Your task to perform on an android device: Open privacy settings Image 0: 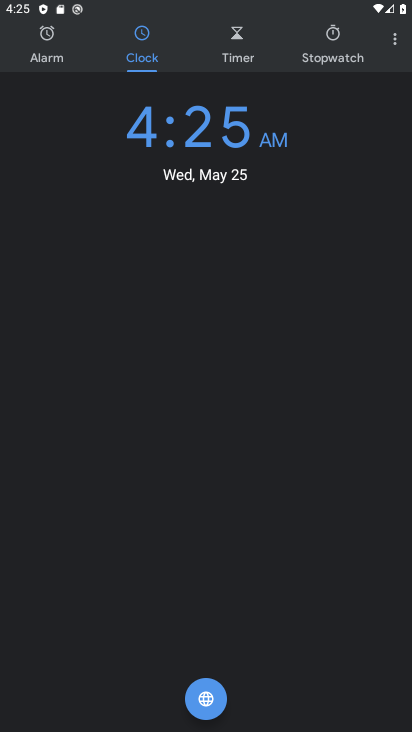
Step 0: press home button
Your task to perform on an android device: Open privacy settings Image 1: 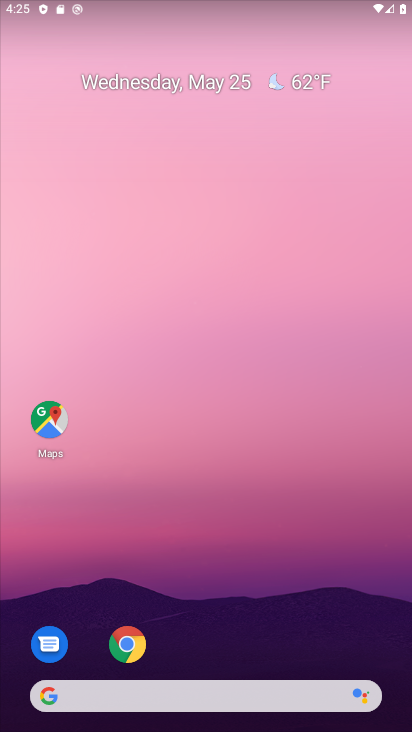
Step 1: drag from (195, 635) to (173, 103)
Your task to perform on an android device: Open privacy settings Image 2: 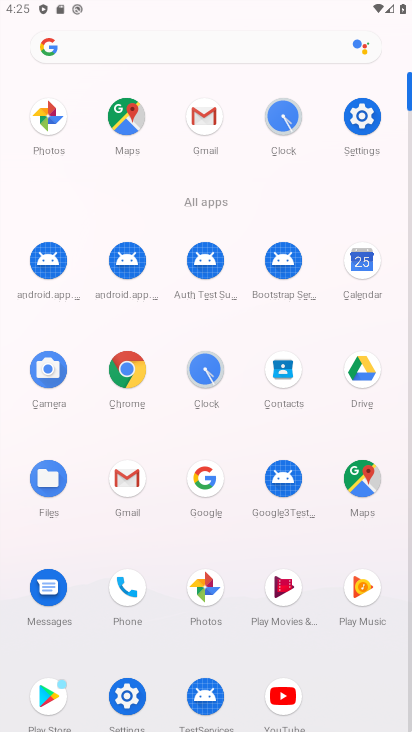
Step 2: click (119, 402)
Your task to perform on an android device: Open privacy settings Image 3: 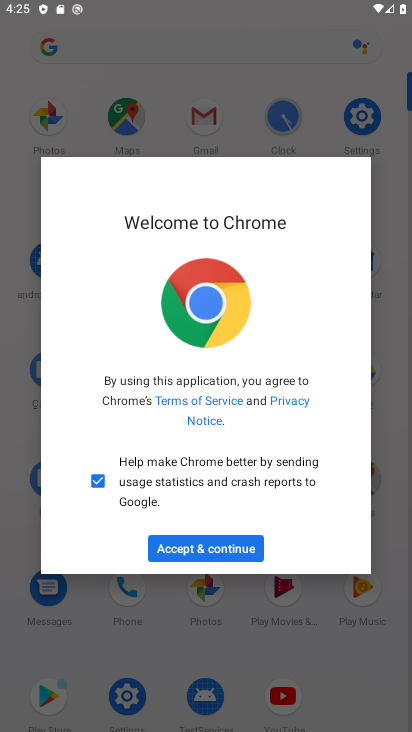
Step 3: press home button
Your task to perform on an android device: Open privacy settings Image 4: 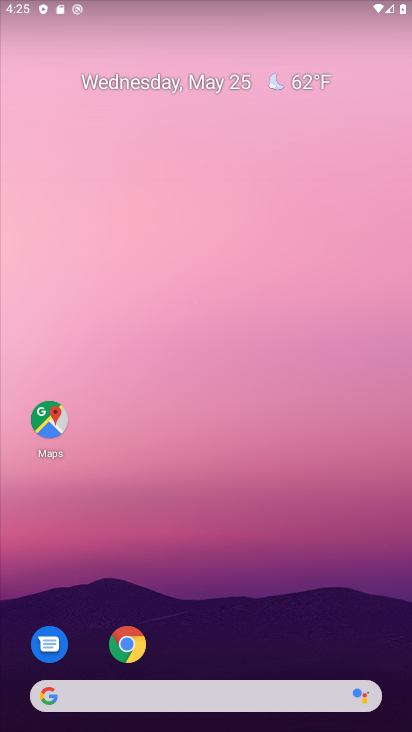
Step 4: drag from (190, 508) to (183, 241)
Your task to perform on an android device: Open privacy settings Image 5: 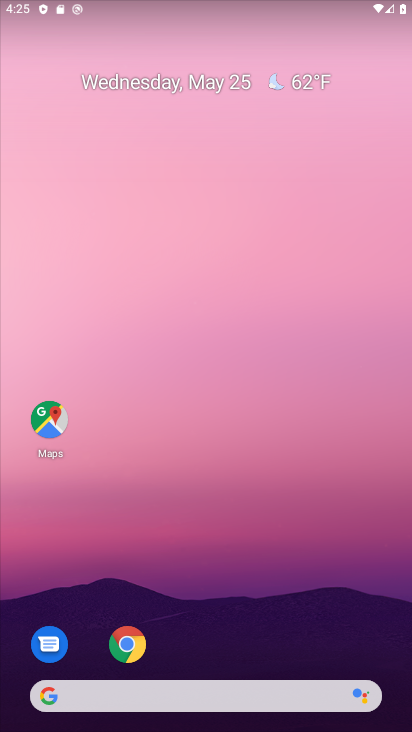
Step 5: drag from (205, 391) to (216, 57)
Your task to perform on an android device: Open privacy settings Image 6: 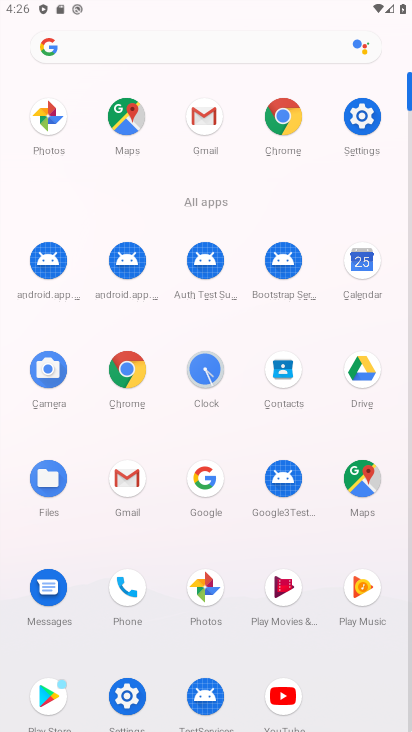
Step 6: click (359, 125)
Your task to perform on an android device: Open privacy settings Image 7: 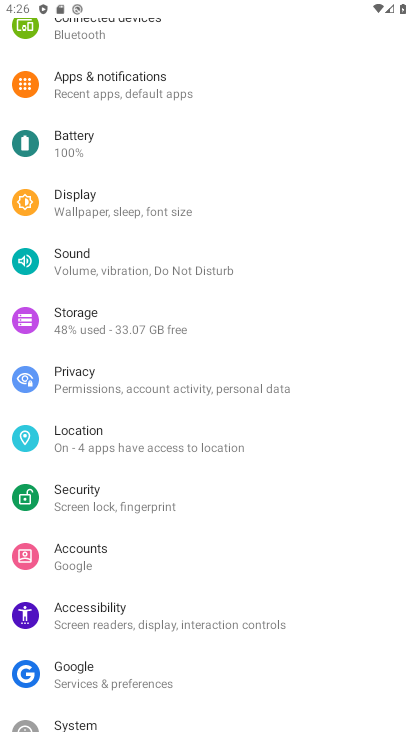
Step 7: click (107, 383)
Your task to perform on an android device: Open privacy settings Image 8: 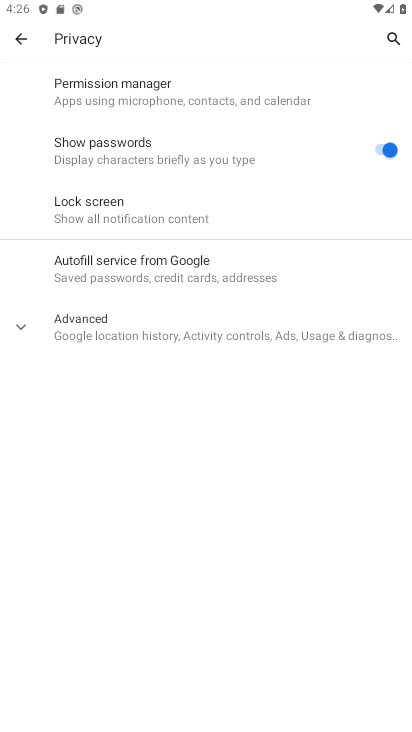
Step 8: task complete